Your task to perform on an android device: open a new tab in the chrome app Image 0: 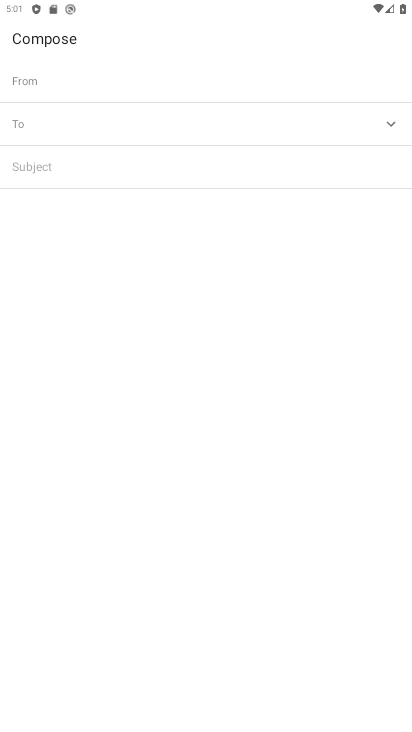
Step 0: press home button
Your task to perform on an android device: open a new tab in the chrome app Image 1: 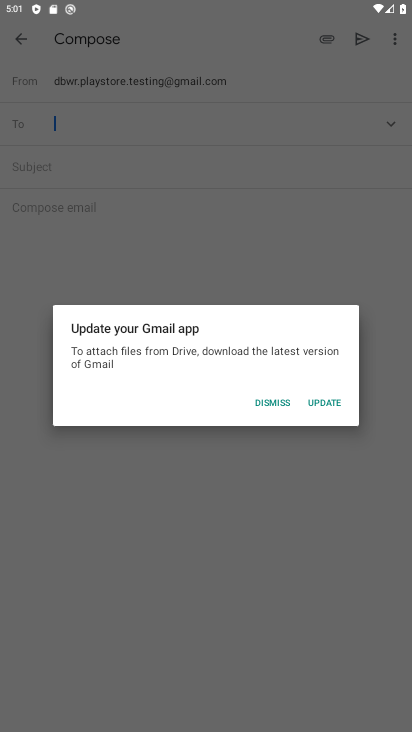
Step 1: click (126, 642)
Your task to perform on an android device: open a new tab in the chrome app Image 2: 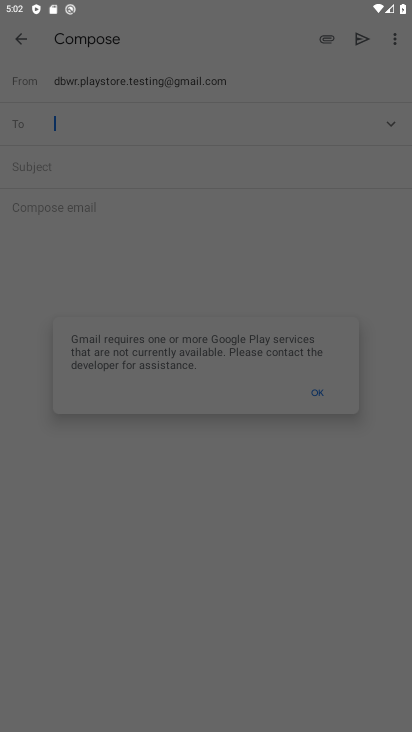
Step 2: press home button
Your task to perform on an android device: open a new tab in the chrome app Image 3: 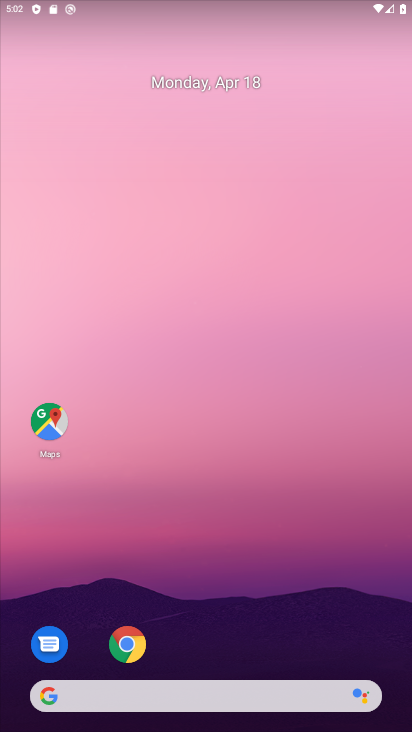
Step 3: click (129, 642)
Your task to perform on an android device: open a new tab in the chrome app Image 4: 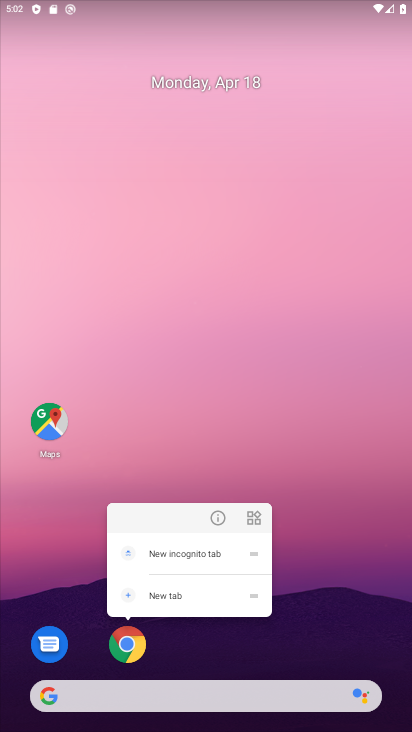
Step 4: click (129, 642)
Your task to perform on an android device: open a new tab in the chrome app Image 5: 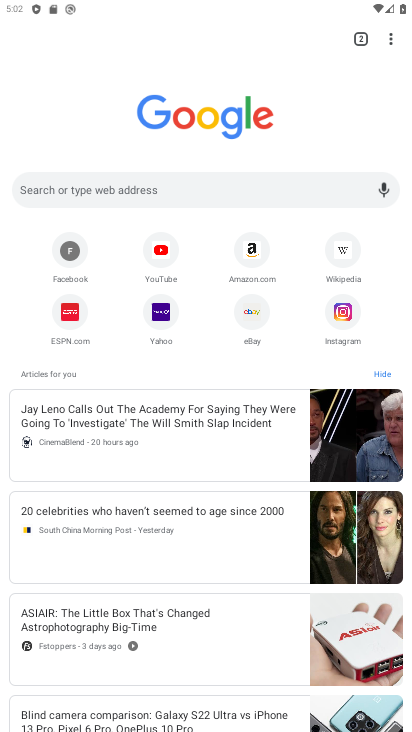
Step 5: click (360, 34)
Your task to perform on an android device: open a new tab in the chrome app Image 6: 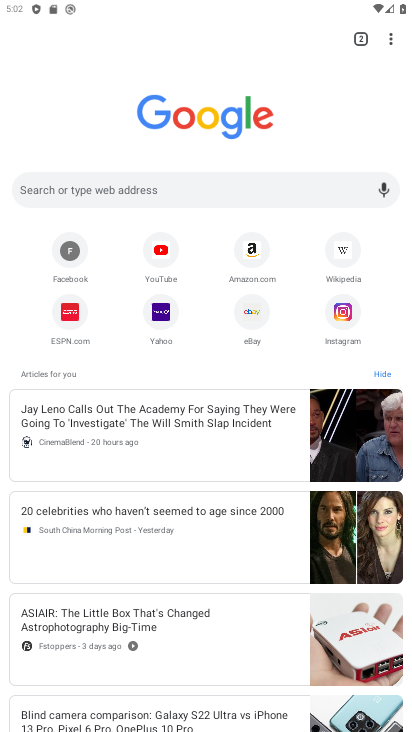
Step 6: click (357, 39)
Your task to perform on an android device: open a new tab in the chrome app Image 7: 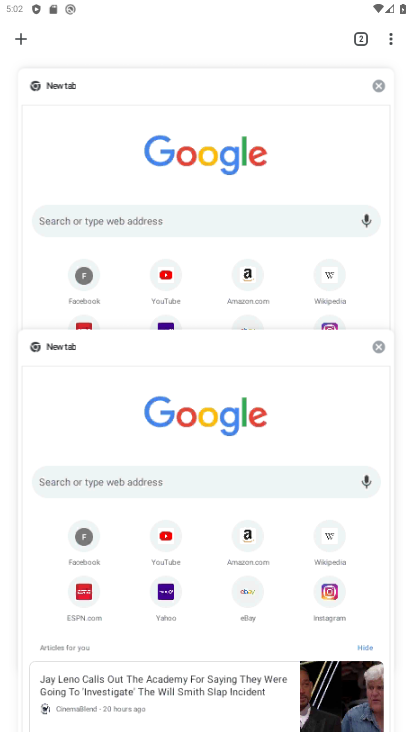
Step 7: click (17, 35)
Your task to perform on an android device: open a new tab in the chrome app Image 8: 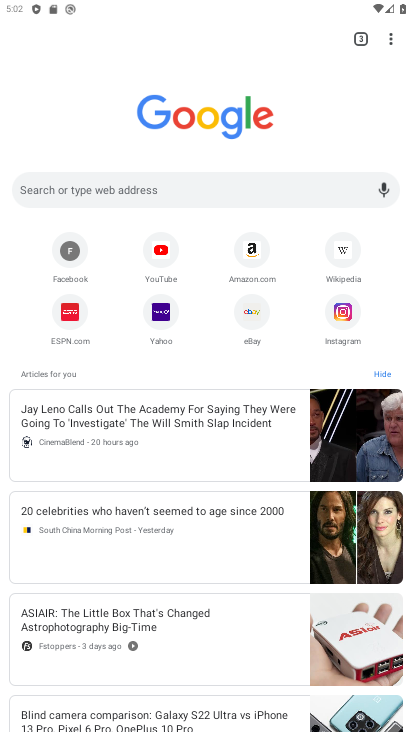
Step 8: task complete